Your task to perform on an android device: Open settings Image 0: 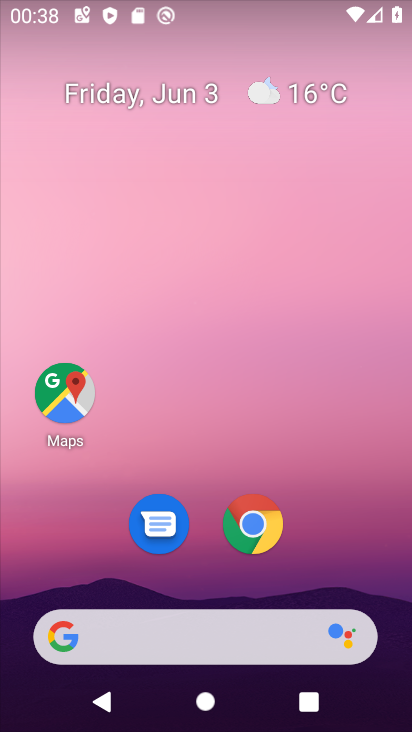
Step 0: drag from (221, 457) to (235, 1)
Your task to perform on an android device: Open settings Image 1: 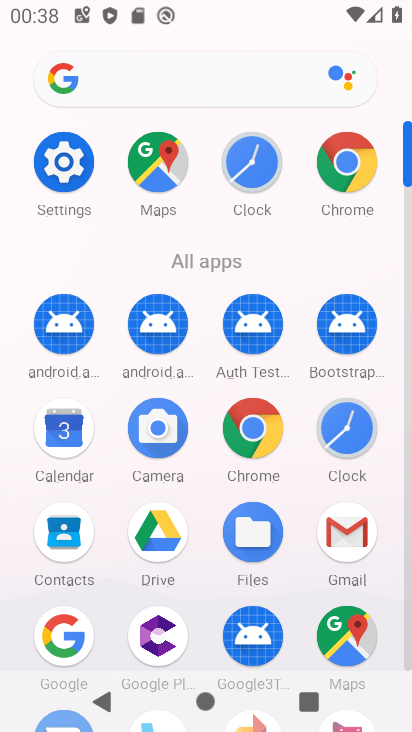
Step 1: click (75, 161)
Your task to perform on an android device: Open settings Image 2: 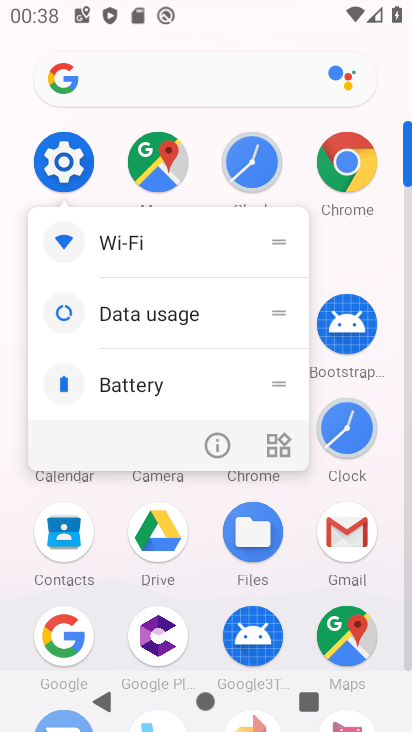
Step 2: click (70, 159)
Your task to perform on an android device: Open settings Image 3: 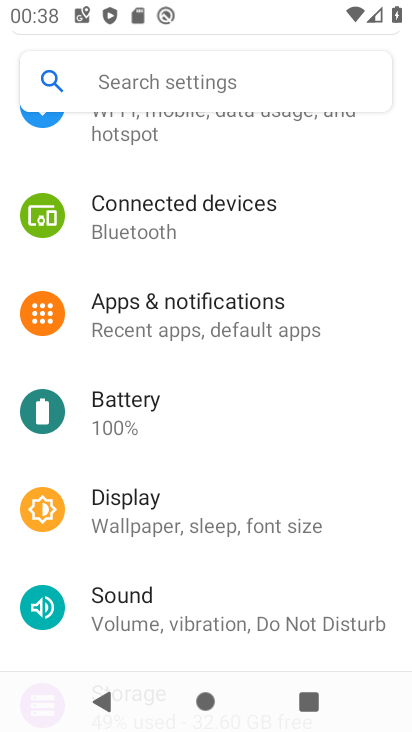
Step 3: task complete